Your task to perform on an android device: allow notifications from all sites in the chrome app Image 0: 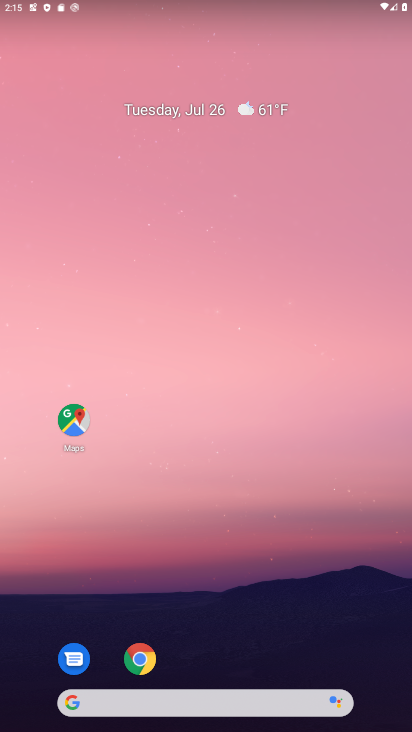
Step 0: click (144, 665)
Your task to perform on an android device: allow notifications from all sites in the chrome app Image 1: 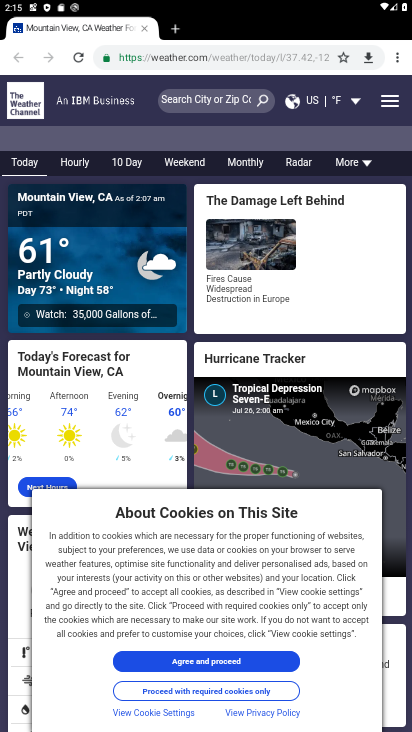
Step 1: click (400, 59)
Your task to perform on an android device: allow notifications from all sites in the chrome app Image 2: 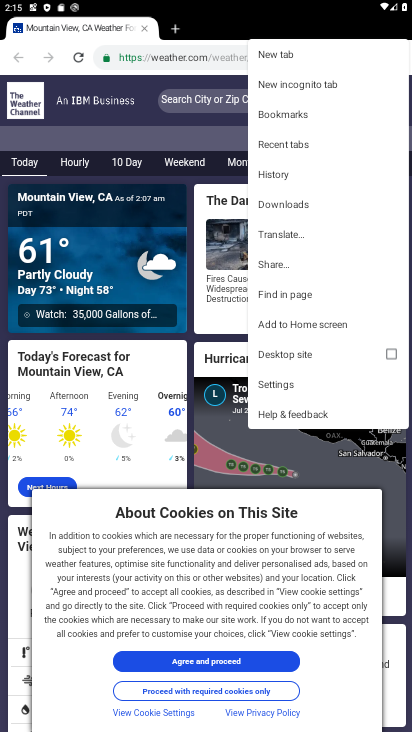
Step 2: click (273, 387)
Your task to perform on an android device: allow notifications from all sites in the chrome app Image 3: 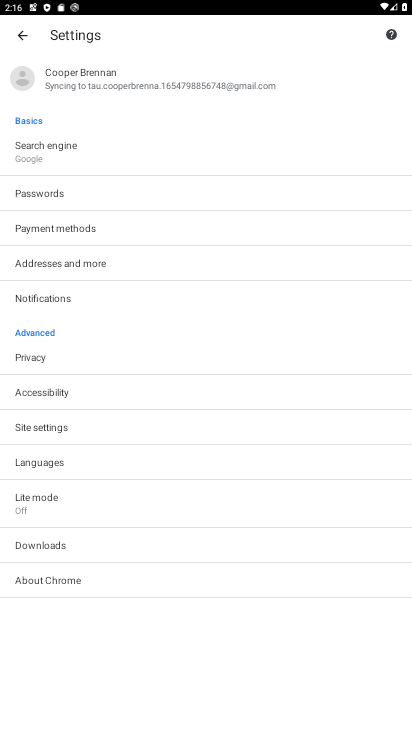
Step 3: click (64, 295)
Your task to perform on an android device: allow notifications from all sites in the chrome app Image 4: 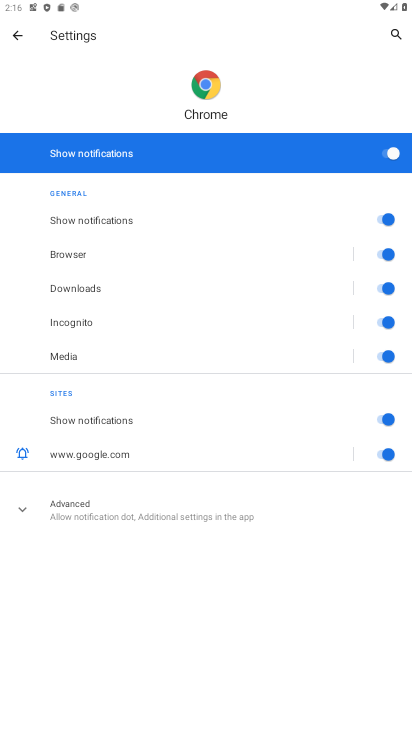
Step 4: task complete